Your task to perform on an android device: turn on improve location accuracy Image 0: 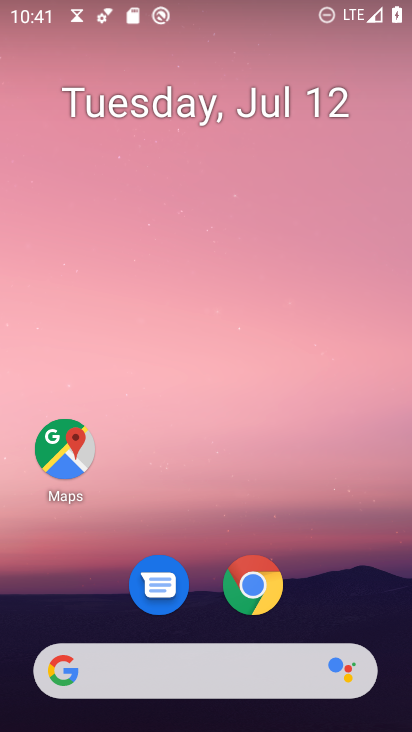
Step 0: drag from (203, 676) to (257, 63)
Your task to perform on an android device: turn on improve location accuracy Image 1: 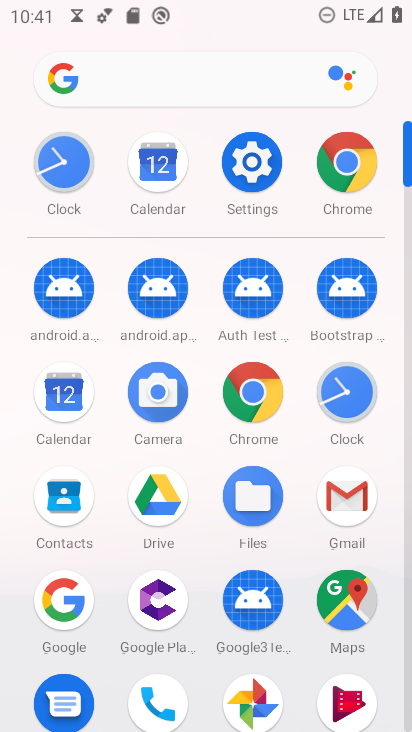
Step 1: click (249, 164)
Your task to perform on an android device: turn on improve location accuracy Image 2: 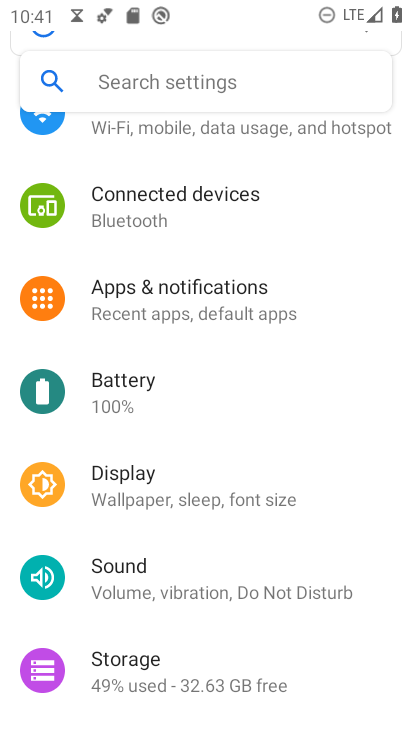
Step 2: drag from (228, 487) to (260, 49)
Your task to perform on an android device: turn on improve location accuracy Image 3: 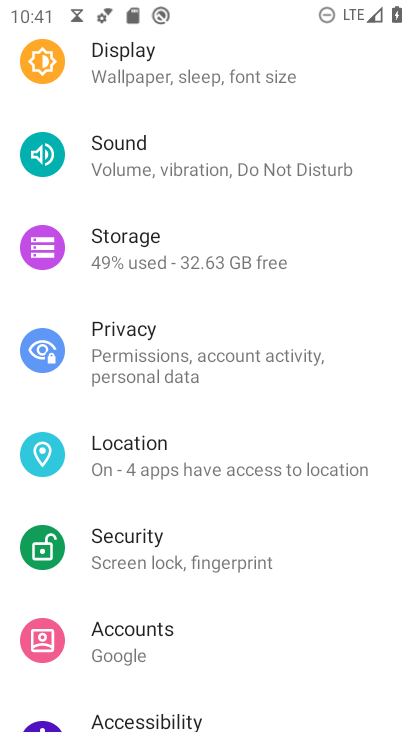
Step 3: click (178, 470)
Your task to perform on an android device: turn on improve location accuracy Image 4: 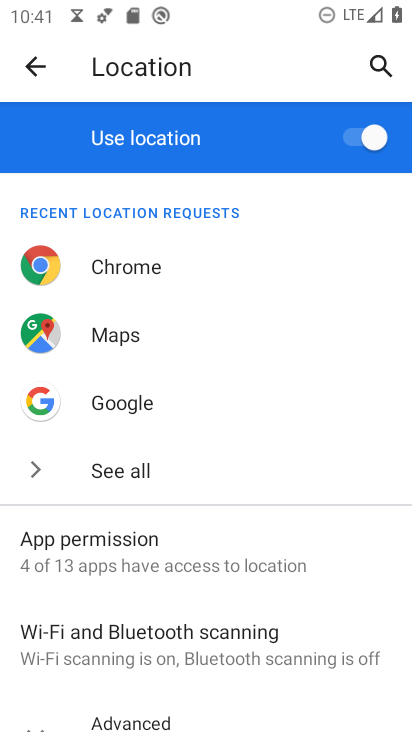
Step 4: drag from (222, 486) to (276, 36)
Your task to perform on an android device: turn on improve location accuracy Image 5: 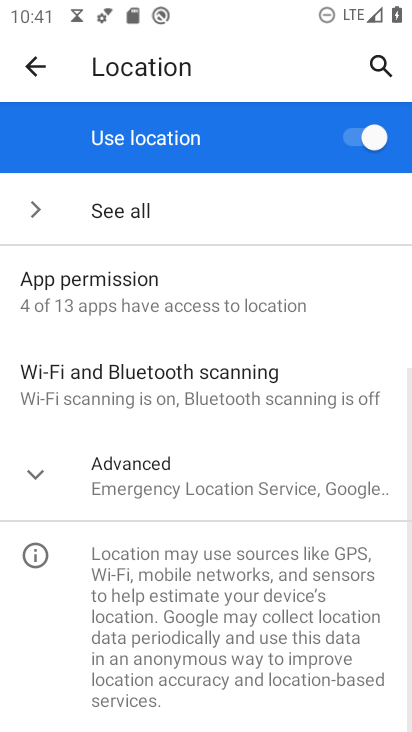
Step 5: click (152, 485)
Your task to perform on an android device: turn on improve location accuracy Image 6: 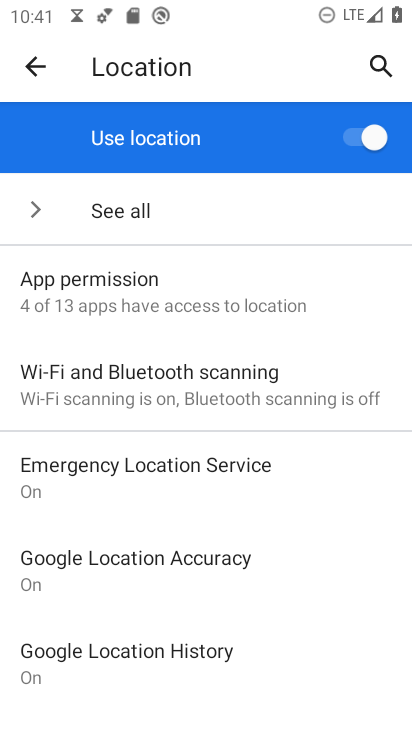
Step 6: click (181, 568)
Your task to perform on an android device: turn on improve location accuracy Image 7: 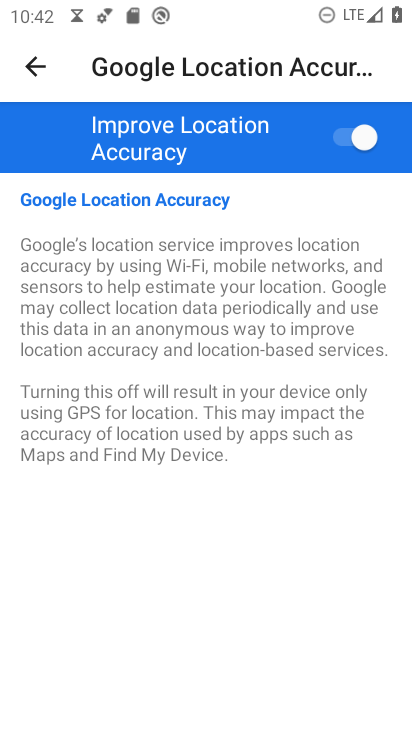
Step 7: task complete